Your task to perform on an android device: allow cookies in the chrome app Image 0: 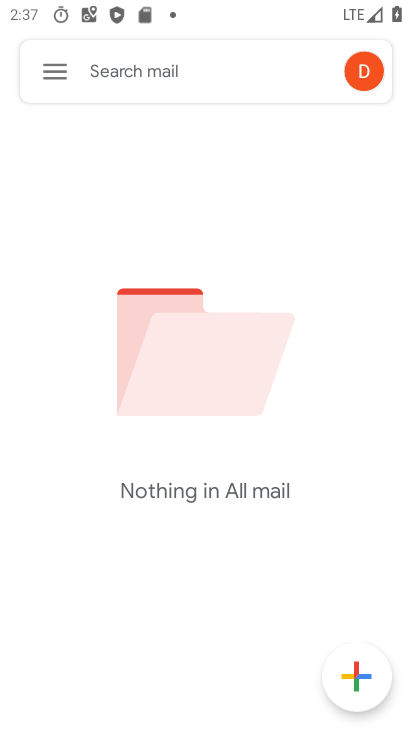
Step 0: press home button
Your task to perform on an android device: allow cookies in the chrome app Image 1: 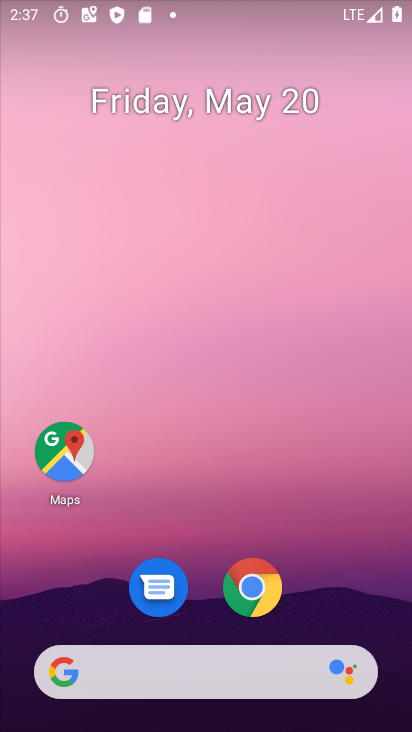
Step 1: click (262, 590)
Your task to perform on an android device: allow cookies in the chrome app Image 2: 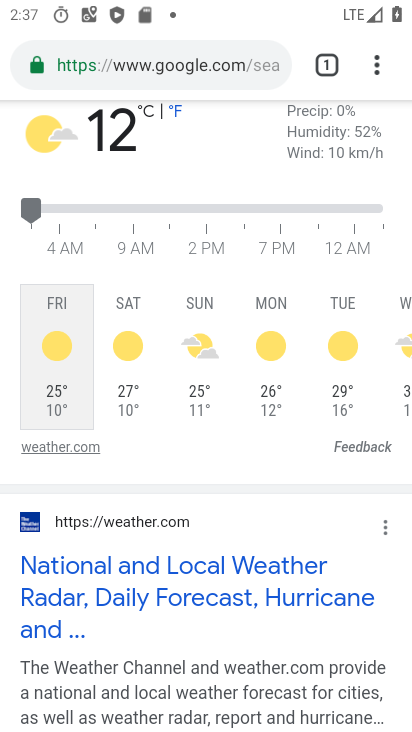
Step 2: drag from (375, 54) to (176, 636)
Your task to perform on an android device: allow cookies in the chrome app Image 3: 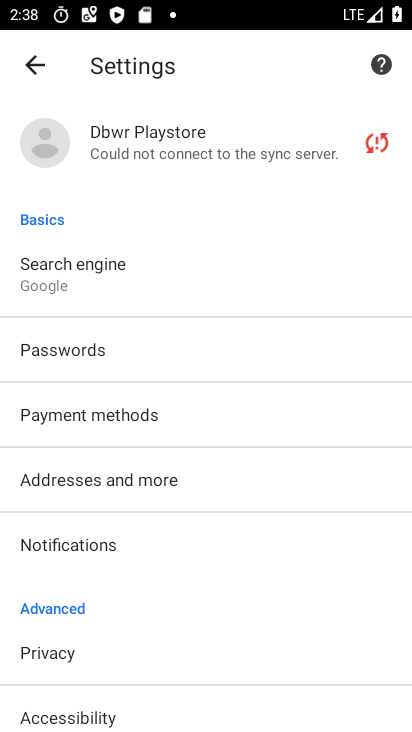
Step 3: drag from (106, 673) to (187, 299)
Your task to perform on an android device: allow cookies in the chrome app Image 4: 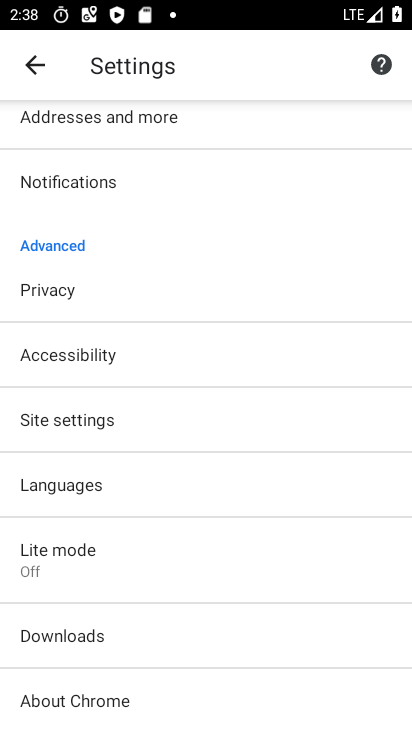
Step 4: click (104, 422)
Your task to perform on an android device: allow cookies in the chrome app Image 5: 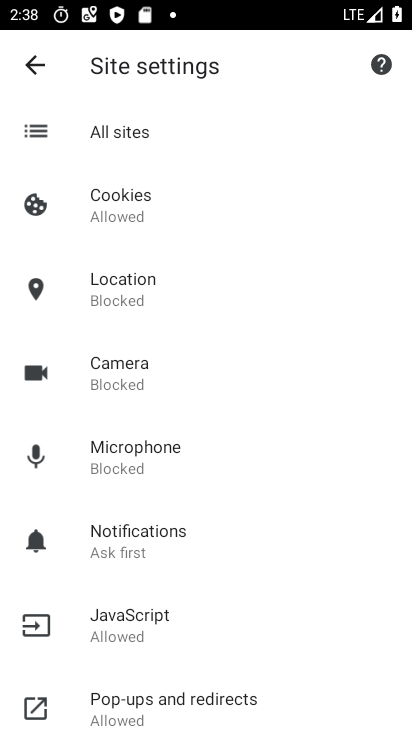
Step 5: drag from (158, 633) to (219, 335)
Your task to perform on an android device: allow cookies in the chrome app Image 6: 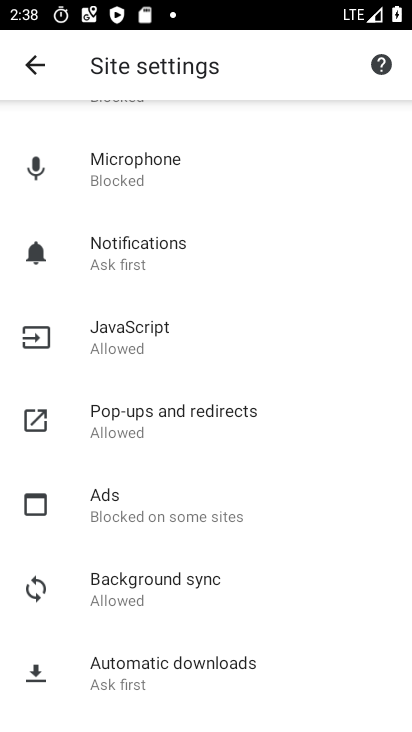
Step 6: drag from (183, 240) to (179, 645)
Your task to perform on an android device: allow cookies in the chrome app Image 7: 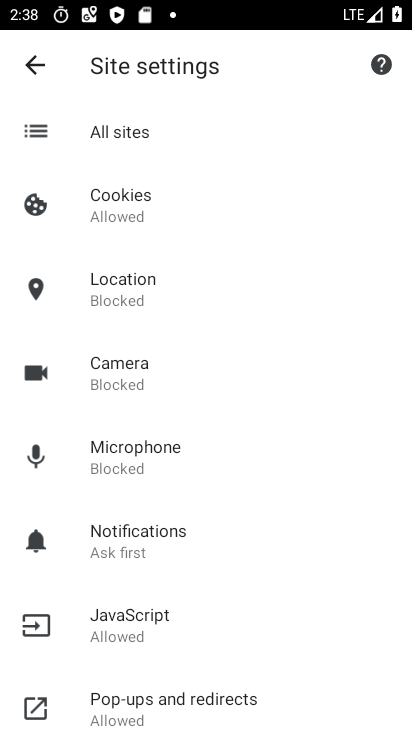
Step 7: click (128, 218)
Your task to perform on an android device: allow cookies in the chrome app Image 8: 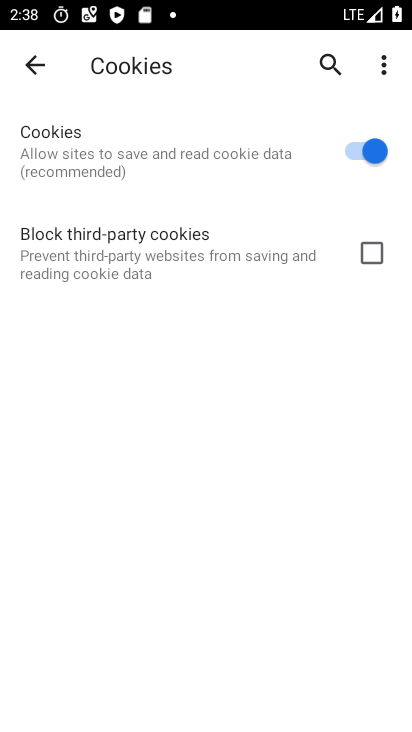
Step 8: task complete